Your task to perform on an android device: Search for "macbook" on bestbuy, select the first entry, add it to the cart, then select checkout. Image 0: 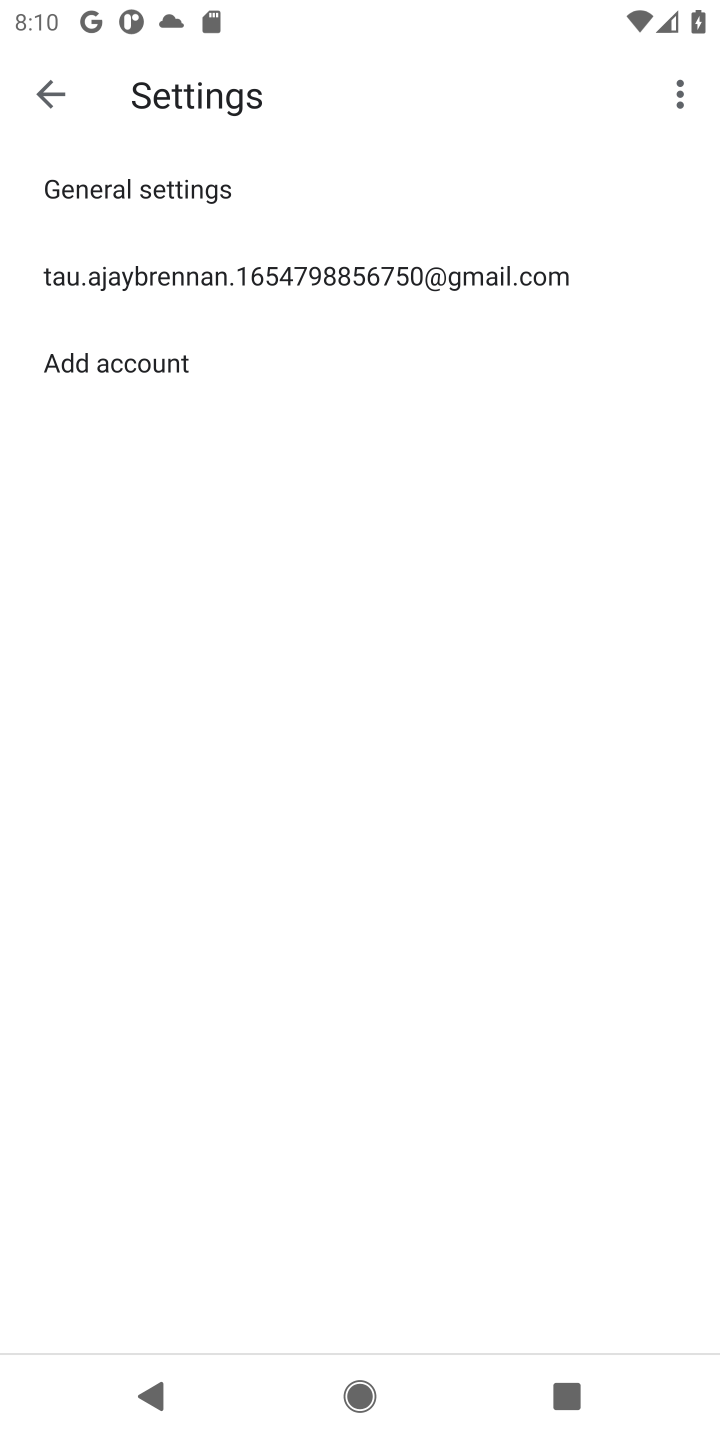
Step 0: press home button
Your task to perform on an android device: Search for "macbook" on bestbuy, select the first entry, add it to the cart, then select checkout. Image 1: 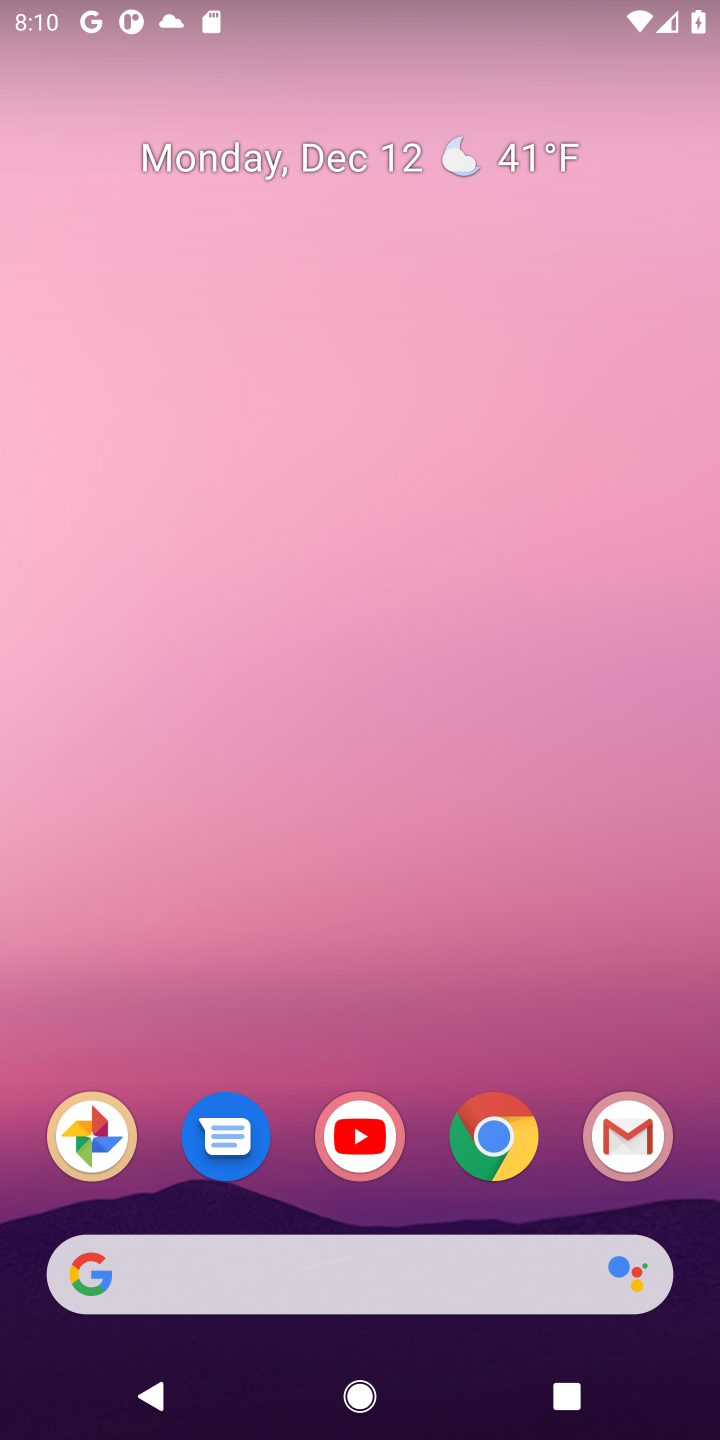
Step 1: click (500, 1143)
Your task to perform on an android device: Search for "macbook" on bestbuy, select the first entry, add it to the cart, then select checkout. Image 2: 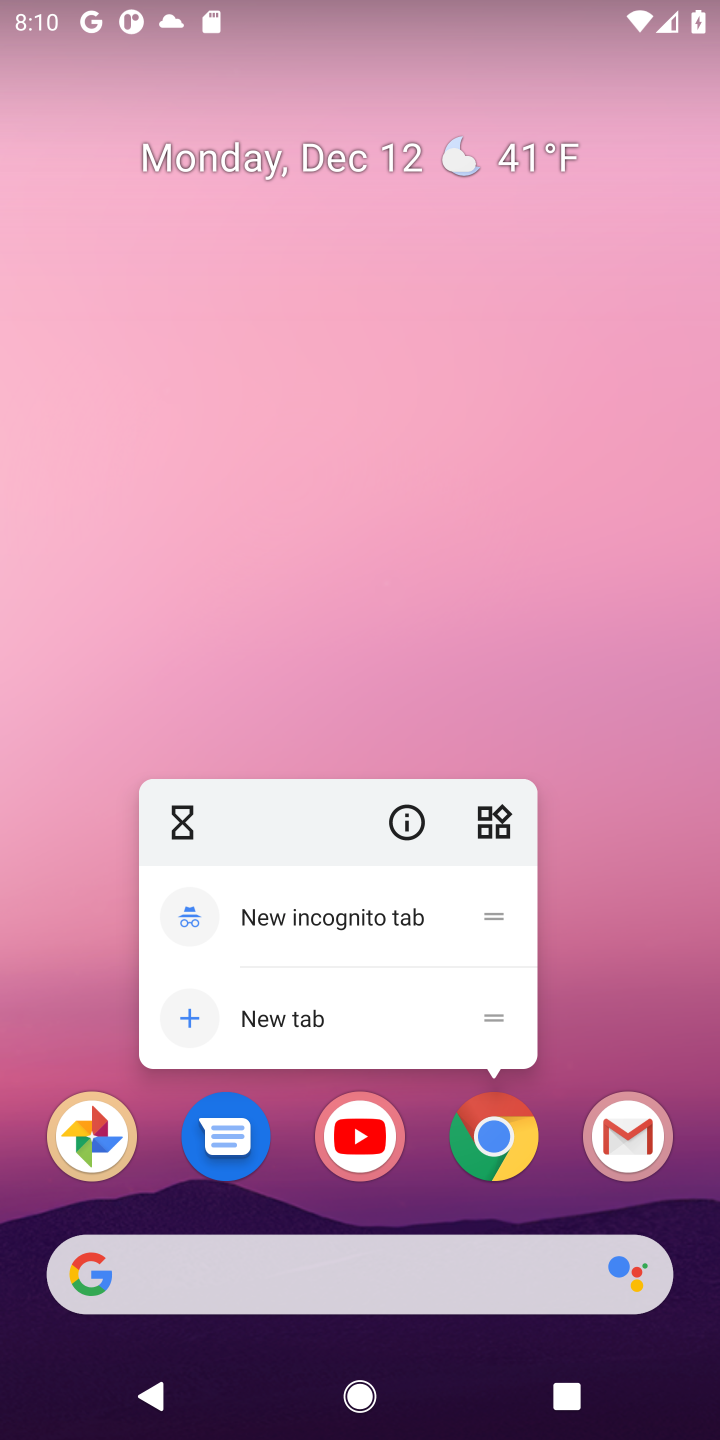
Step 2: click (500, 1143)
Your task to perform on an android device: Search for "macbook" on bestbuy, select the first entry, add it to the cart, then select checkout. Image 3: 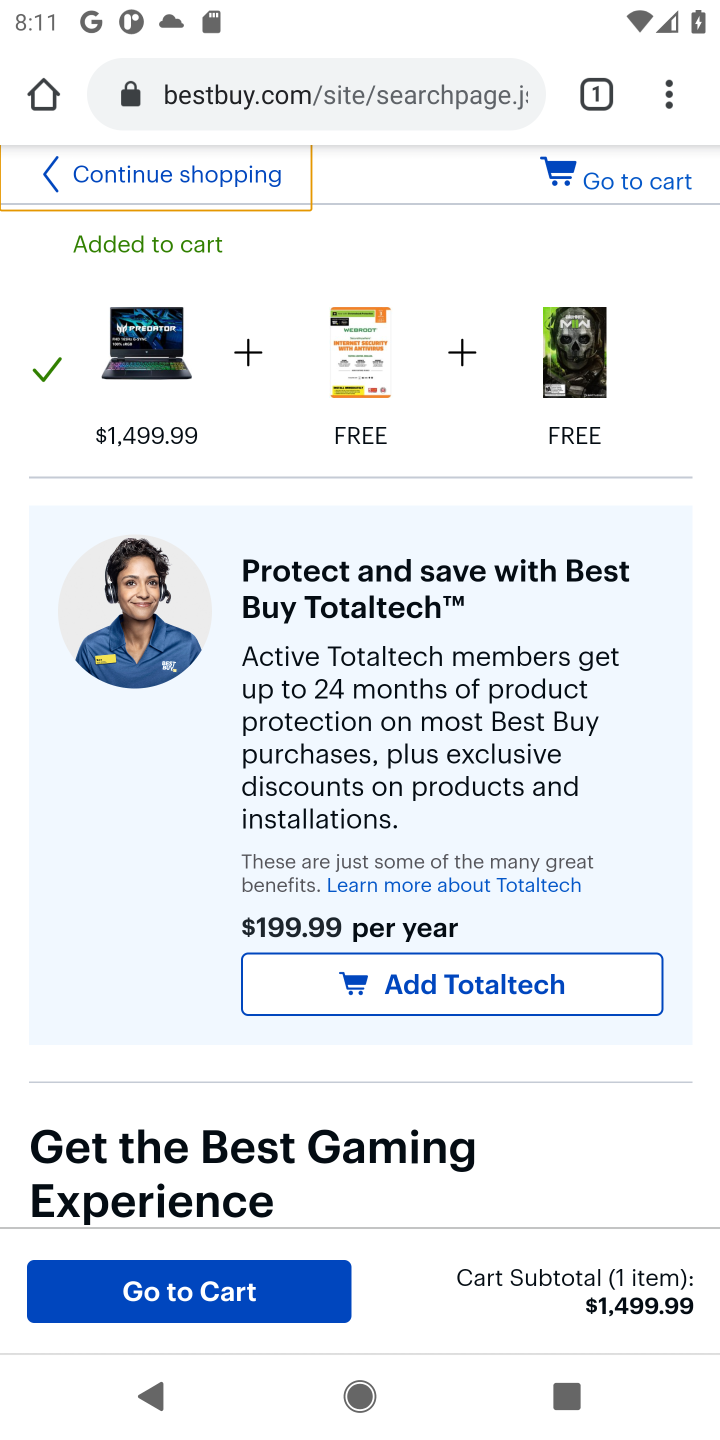
Step 3: click (233, 179)
Your task to perform on an android device: Search for "macbook" on bestbuy, select the first entry, add it to the cart, then select checkout. Image 4: 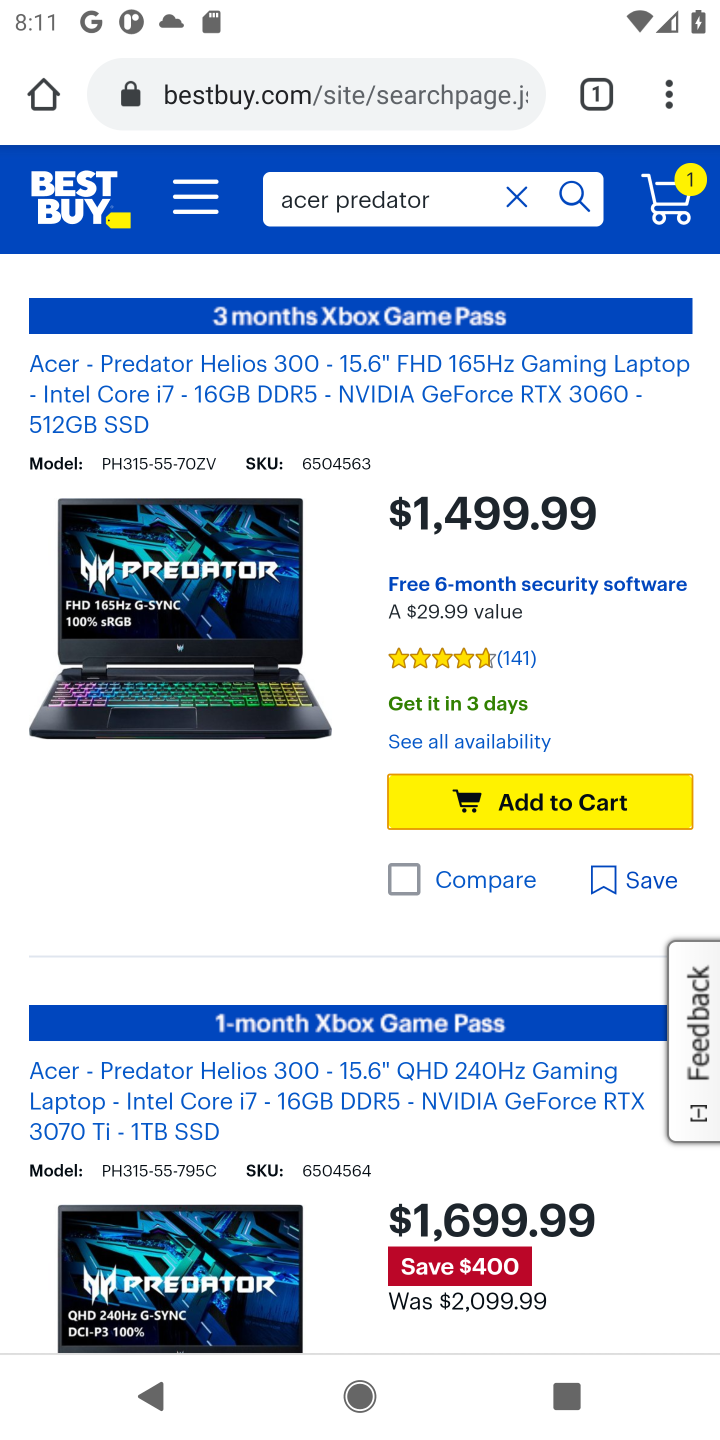
Step 4: click (517, 205)
Your task to perform on an android device: Search for "macbook" on bestbuy, select the first entry, add it to the cart, then select checkout. Image 5: 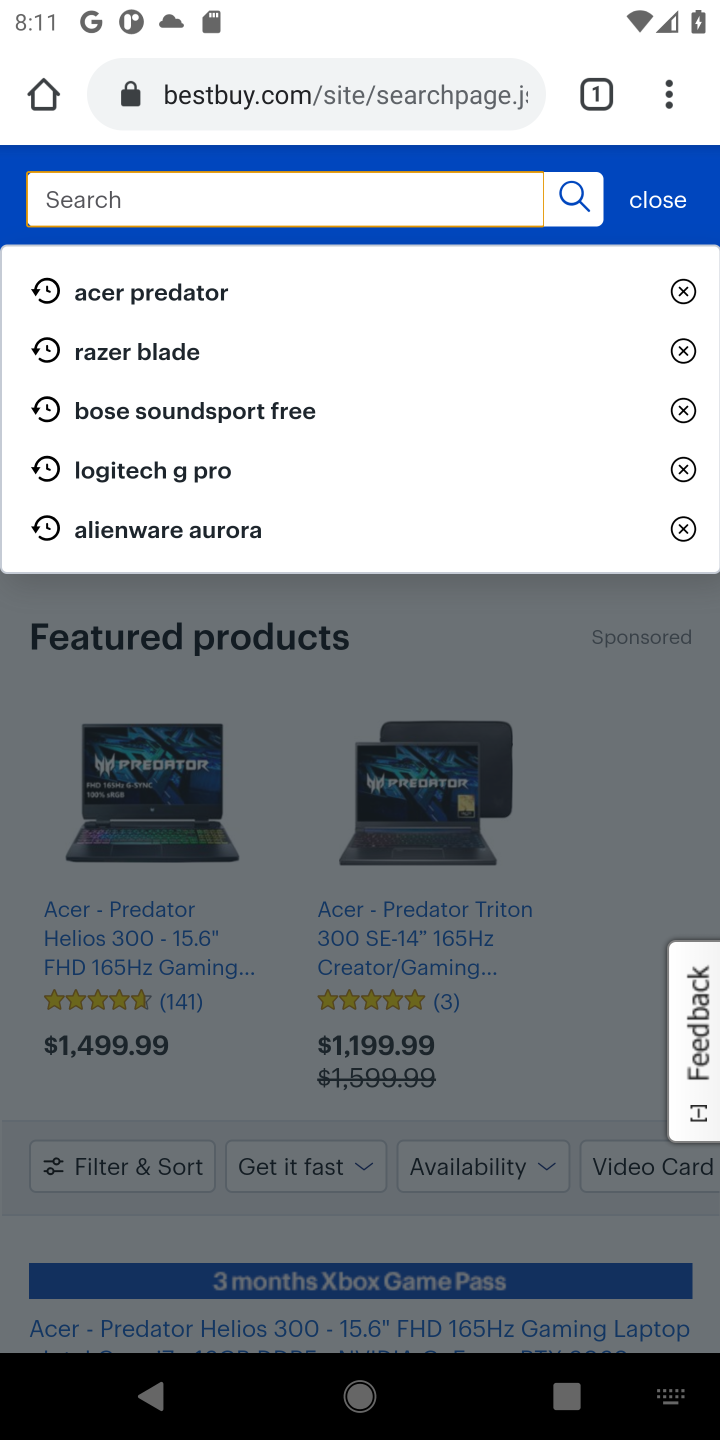
Step 5: type "macbook"
Your task to perform on an android device: Search for "macbook" on bestbuy, select the first entry, add it to the cart, then select checkout. Image 6: 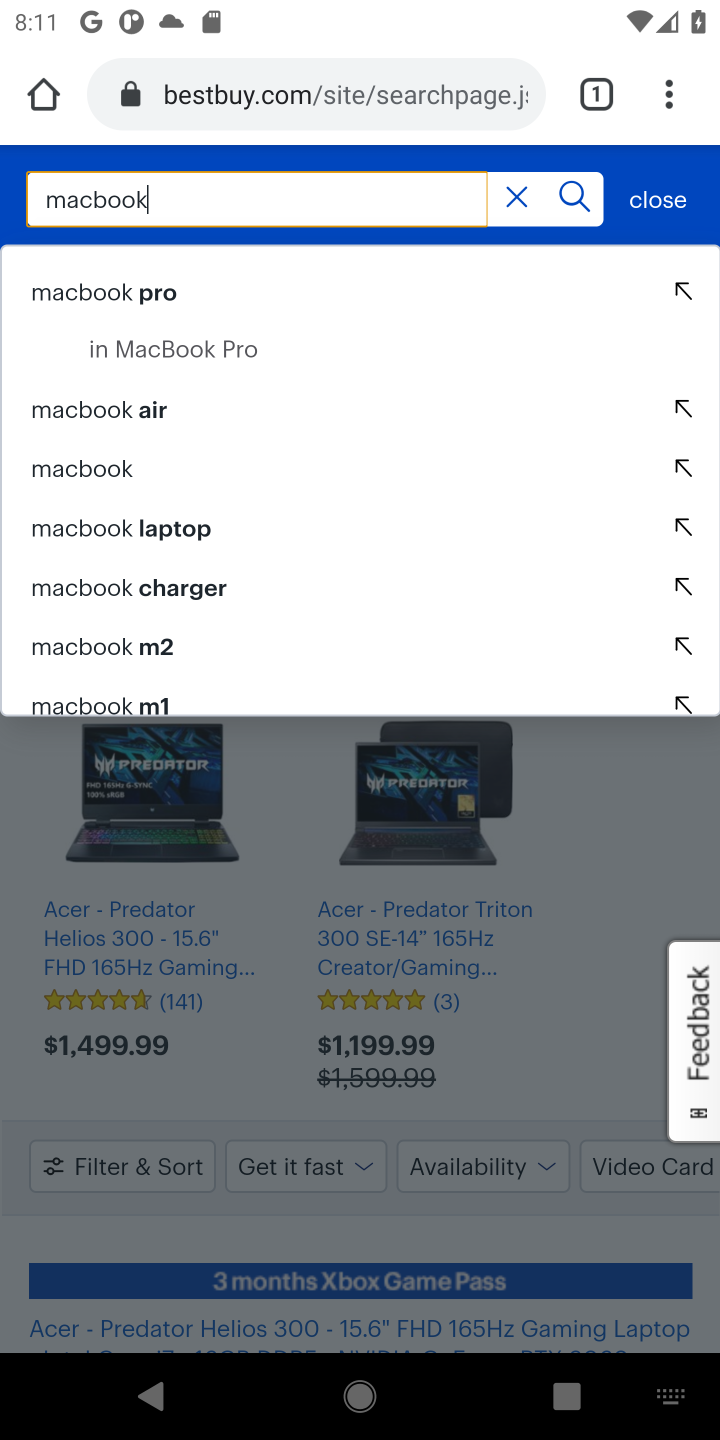
Step 6: click (91, 470)
Your task to perform on an android device: Search for "macbook" on bestbuy, select the first entry, add it to the cart, then select checkout. Image 7: 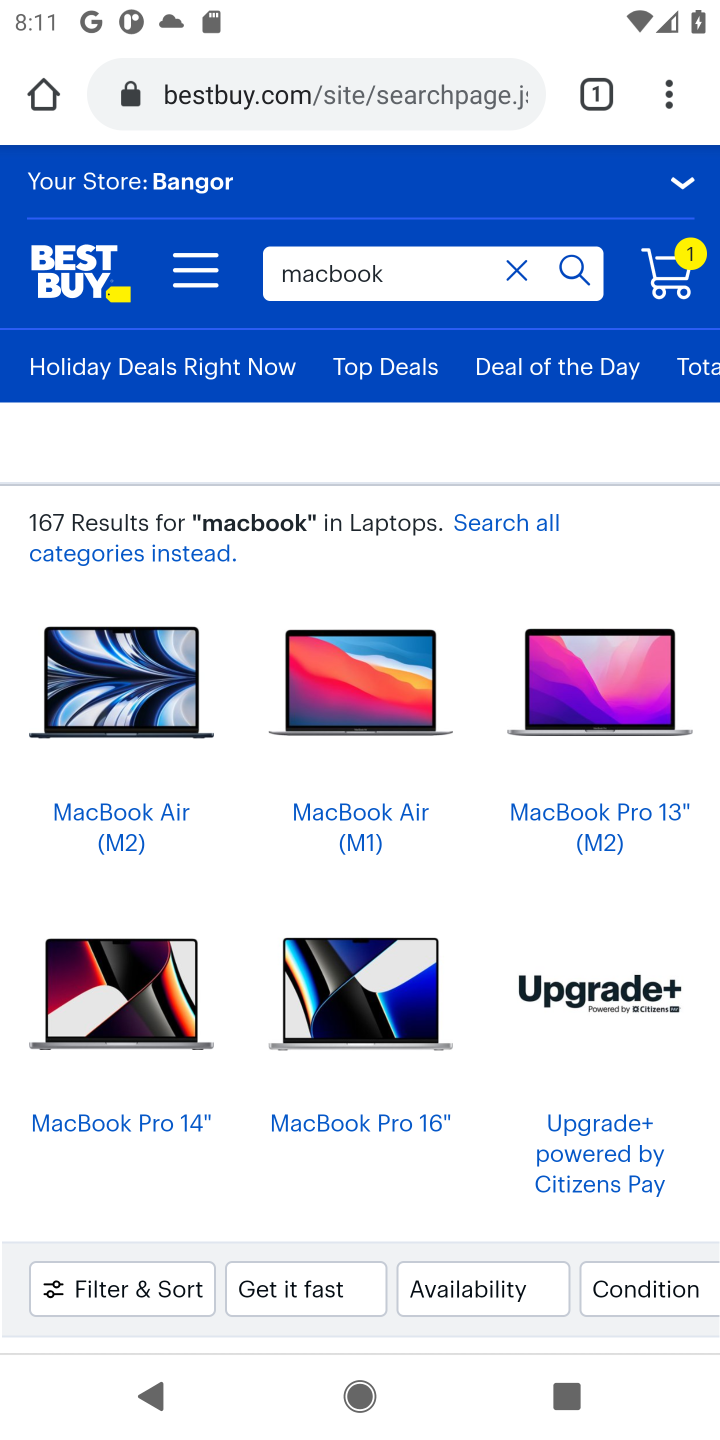
Step 7: drag from (243, 1021) to (273, 368)
Your task to perform on an android device: Search for "macbook" on bestbuy, select the first entry, add it to the cart, then select checkout. Image 8: 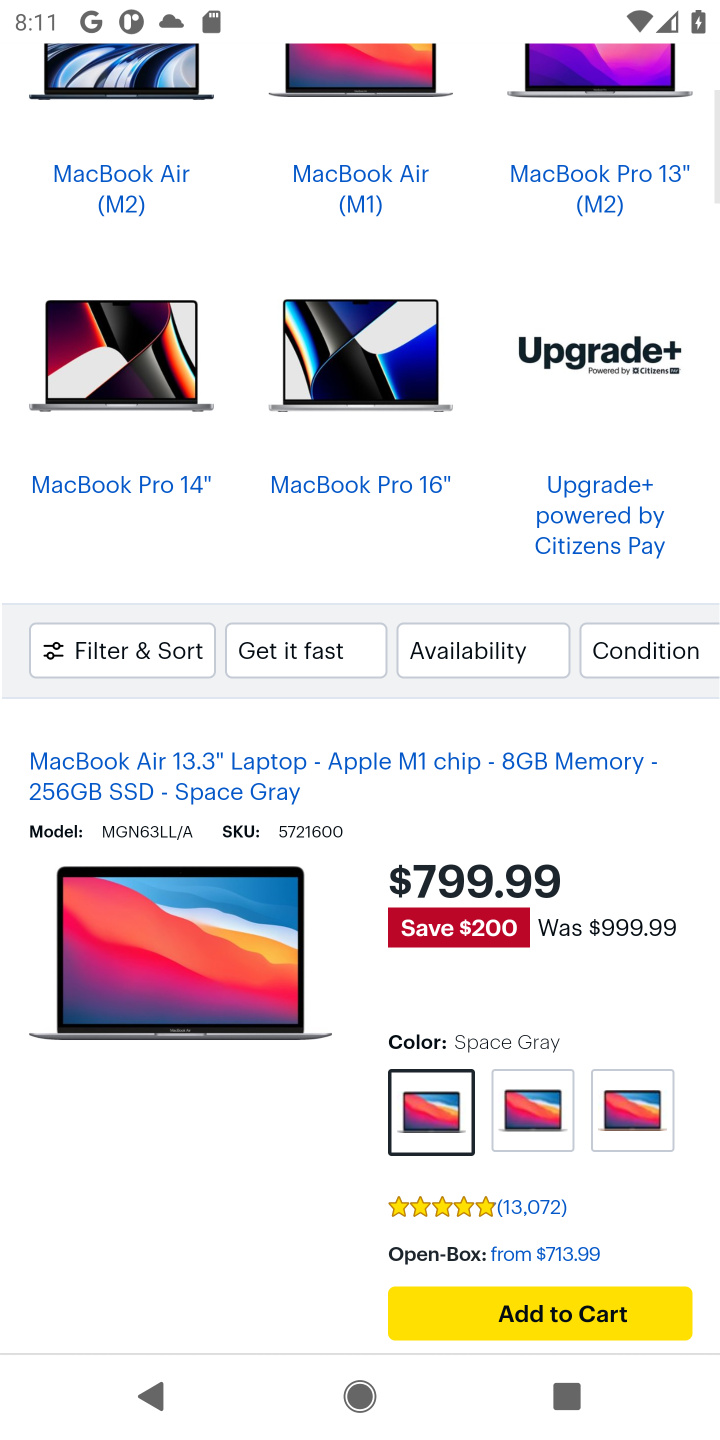
Step 8: drag from (211, 934) to (205, 535)
Your task to perform on an android device: Search for "macbook" on bestbuy, select the first entry, add it to the cart, then select checkout. Image 9: 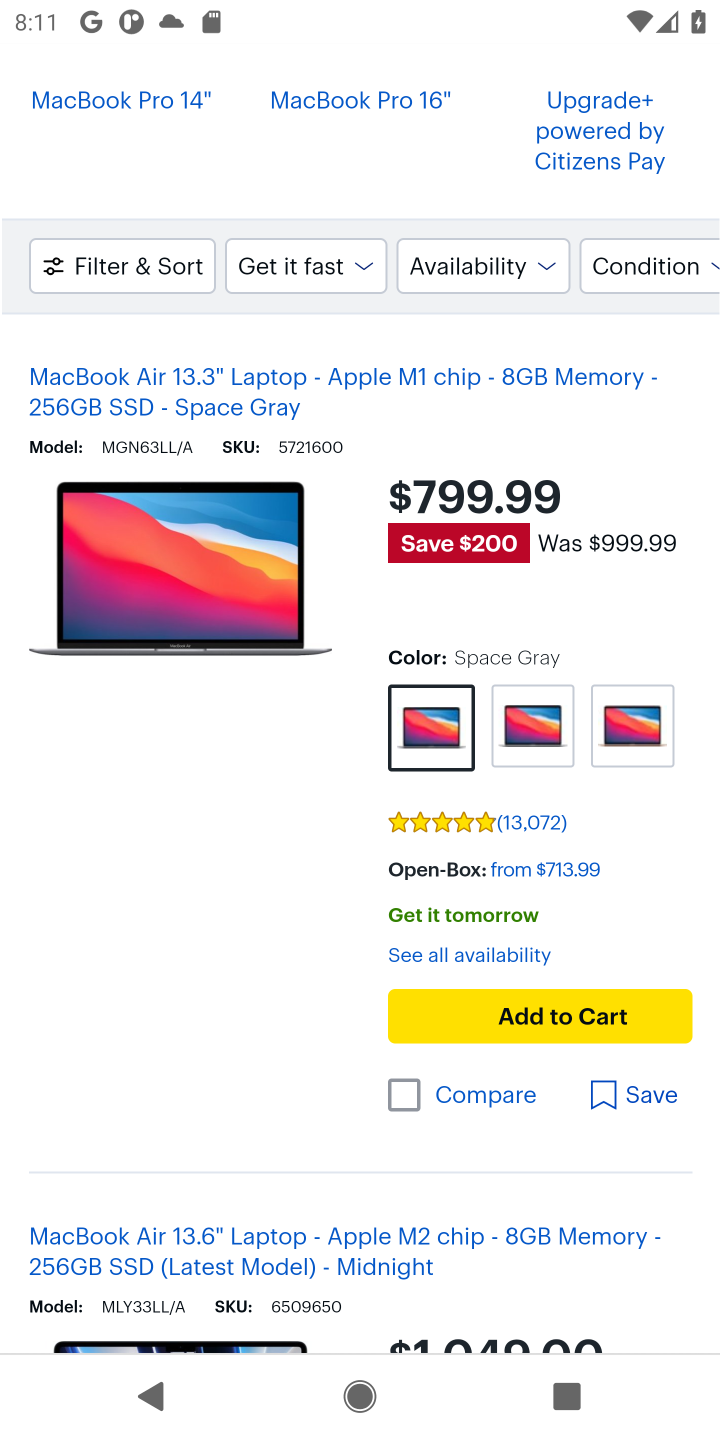
Step 9: click (483, 1017)
Your task to perform on an android device: Search for "macbook" on bestbuy, select the first entry, add it to the cart, then select checkout. Image 10: 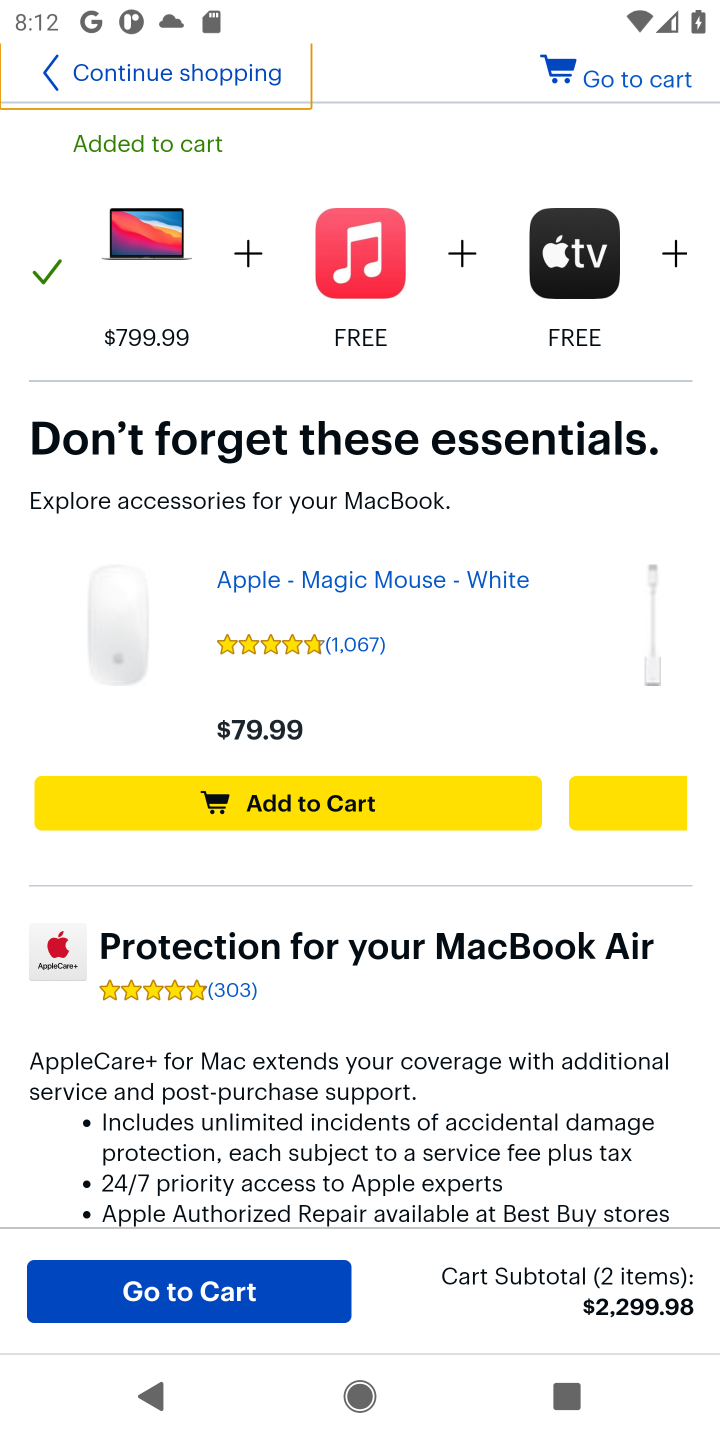
Step 10: click (651, 90)
Your task to perform on an android device: Search for "macbook" on bestbuy, select the first entry, add it to the cart, then select checkout. Image 11: 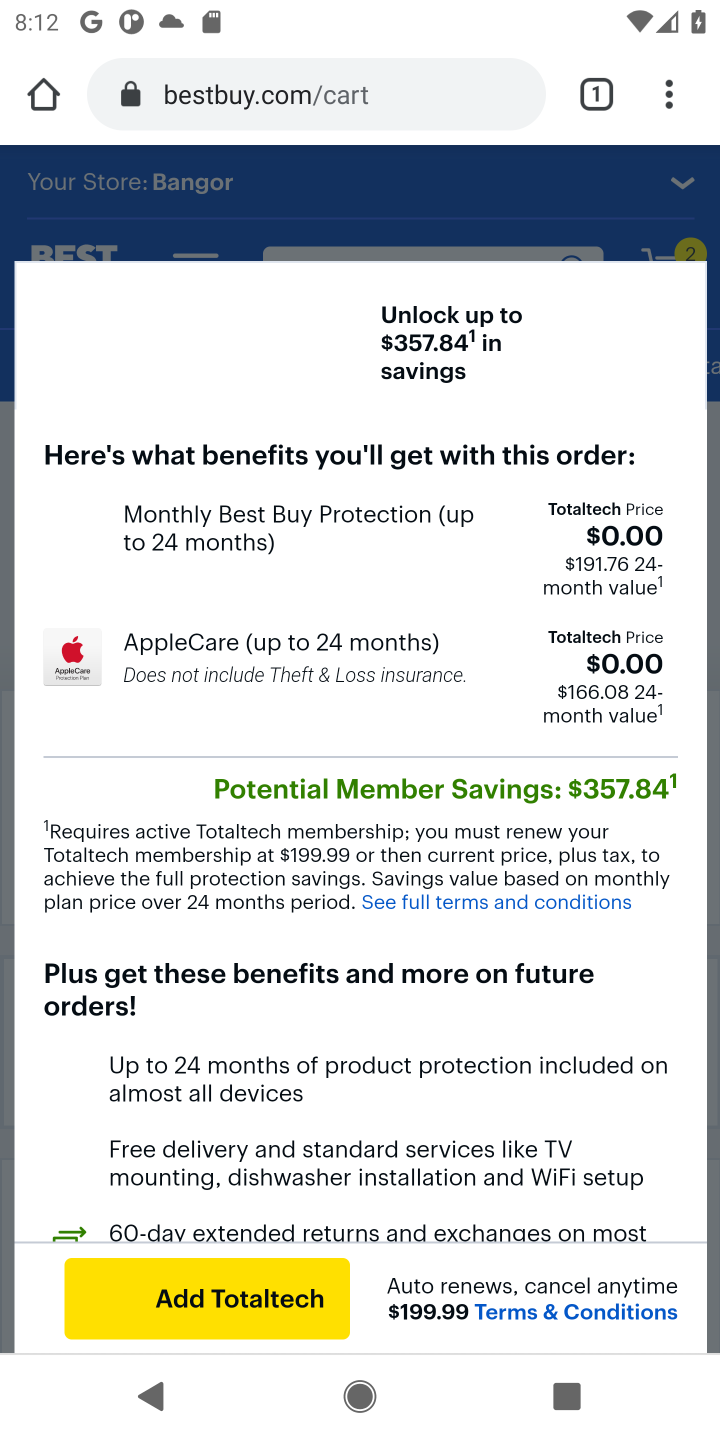
Step 11: click (351, 844)
Your task to perform on an android device: Search for "macbook" on bestbuy, select the first entry, add it to the cart, then select checkout. Image 12: 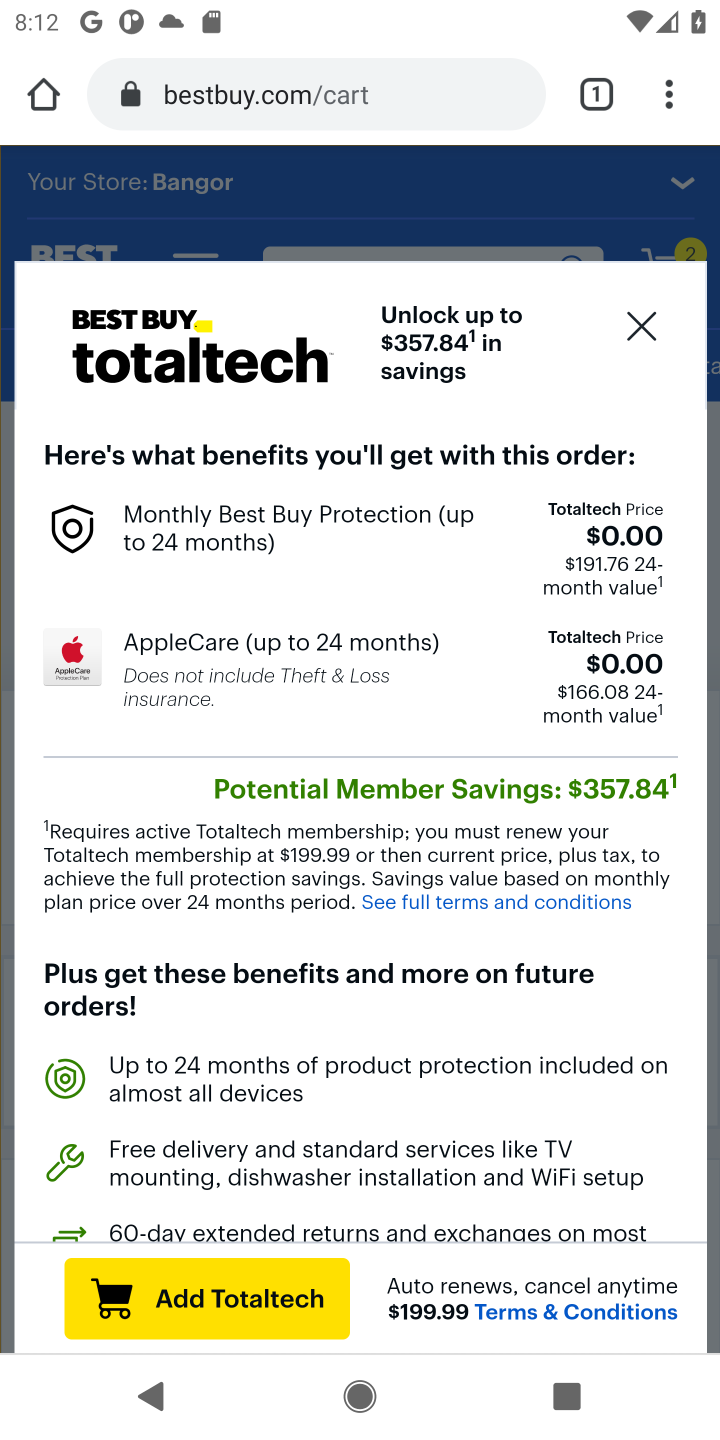
Step 12: click (636, 322)
Your task to perform on an android device: Search for "macbook" on bestbuy, select the first entry, add it to the cart, then select checkout. Image 13: 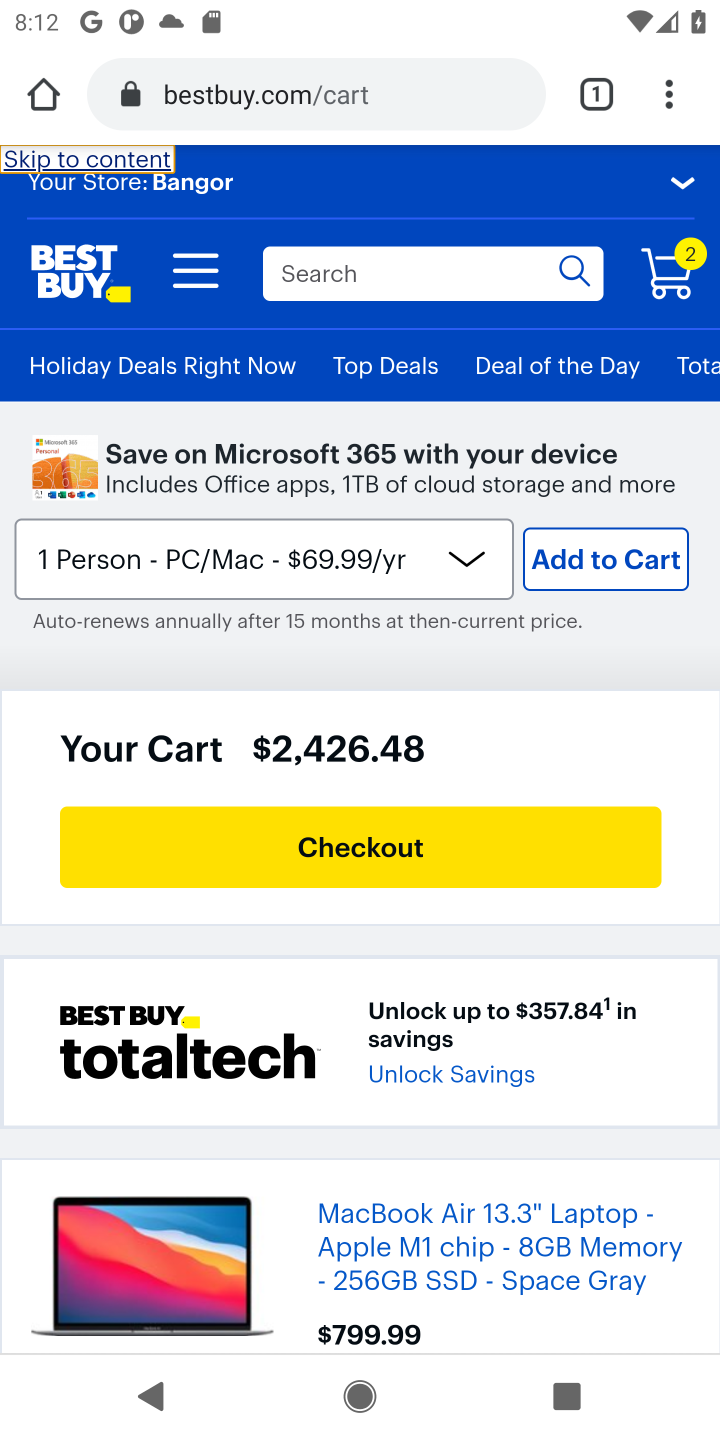
Step 13: click (323, 858)
Your task to perform on an android device: Search for "macbook" on bestbuy, select the first entry, add it to the cart, then select checkout. Image 14: 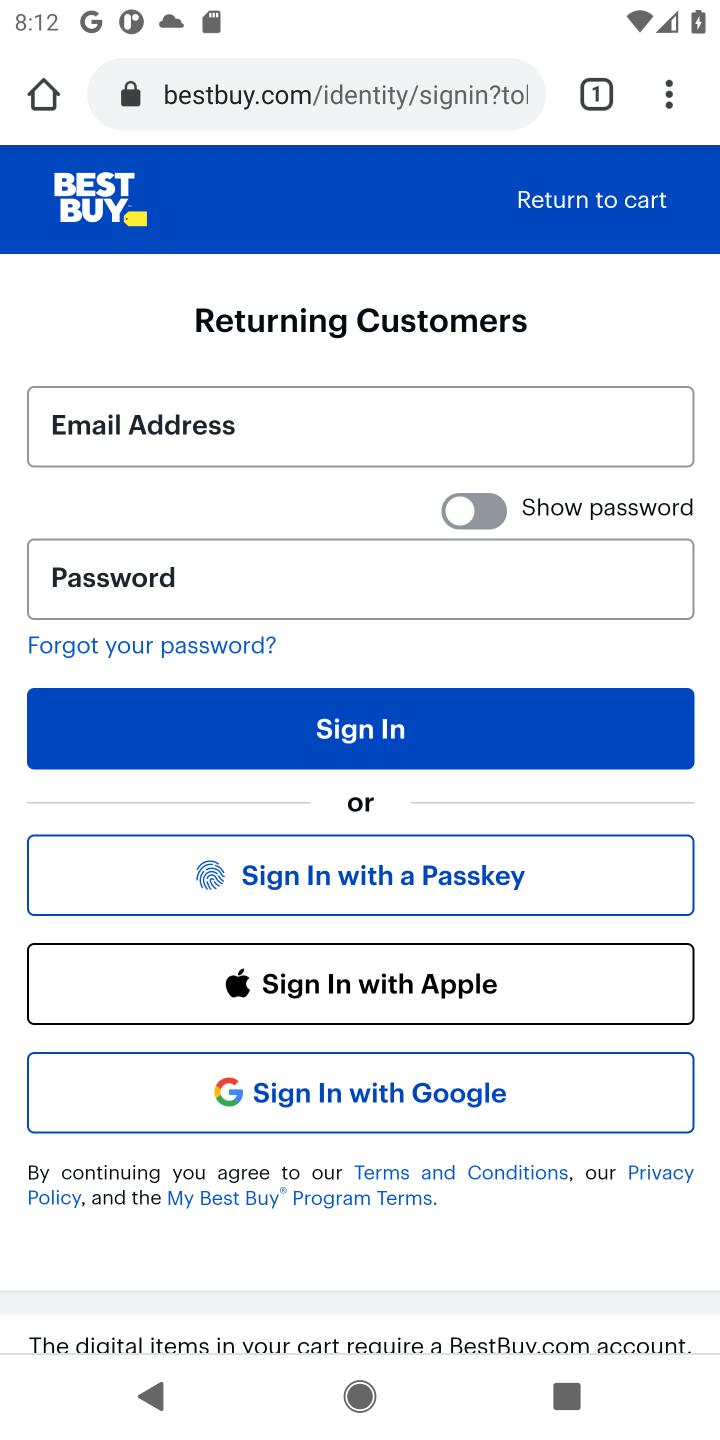
Step 14: task complete